Your task to perform on an android device: Clear the shopping cart on ebay. Add "bose soundlink" to the cart on ebay Image 0: 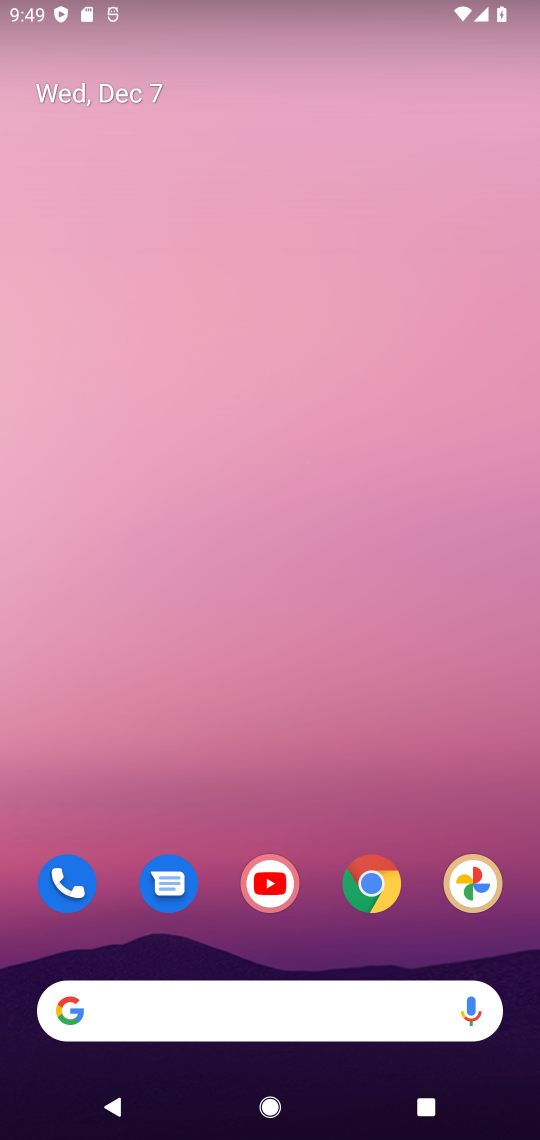
Step 0: drag from (228, 778) to (263, 133)
Your task to perform on an android device: Clear the shopping cart on ebay. Add "bose soundlink" to the cart on ebay Image 1: 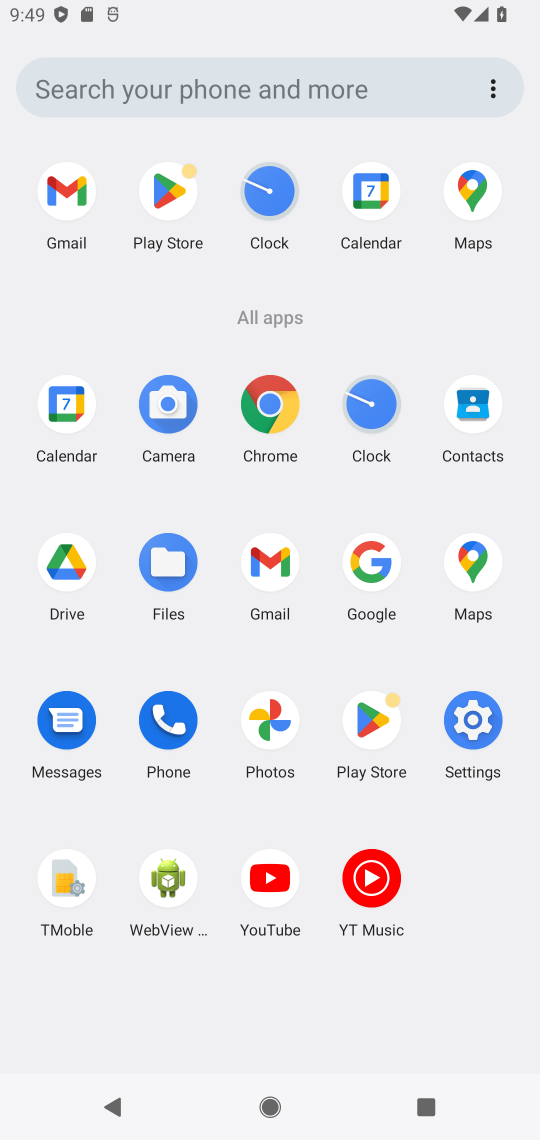
Step 1: click (364, 564)
Your task to perform on an android device: Clear the shopping cart on ebay. Add "bose soundlink" to the cart on ebay Image 2: 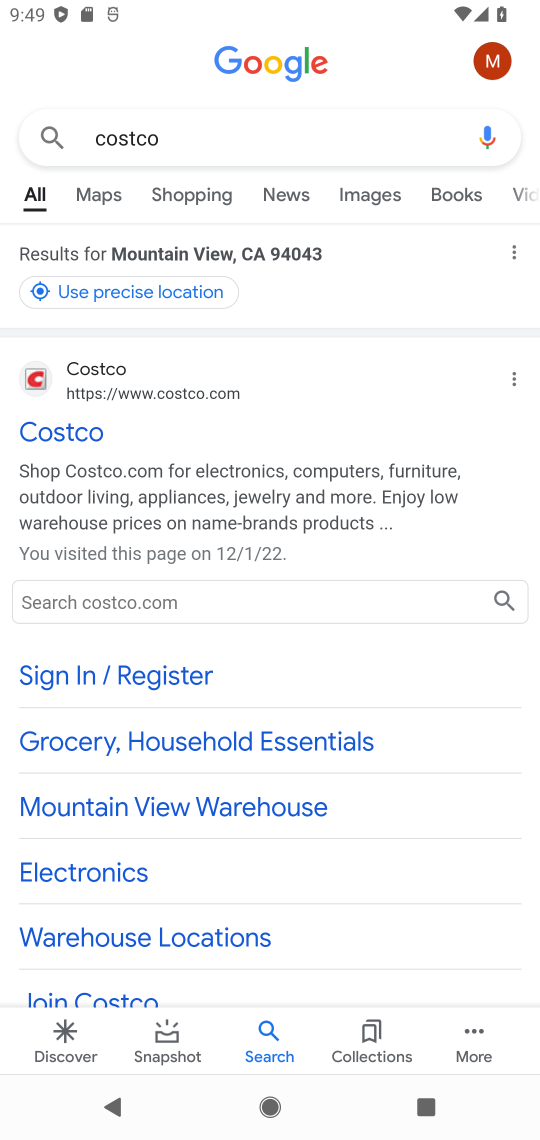
Step 2: click (170, 141)
Your task to perform on an android device: Clear the shopping cart on ebay. Add "bose soundlink" to the cart on ebay Image 3: 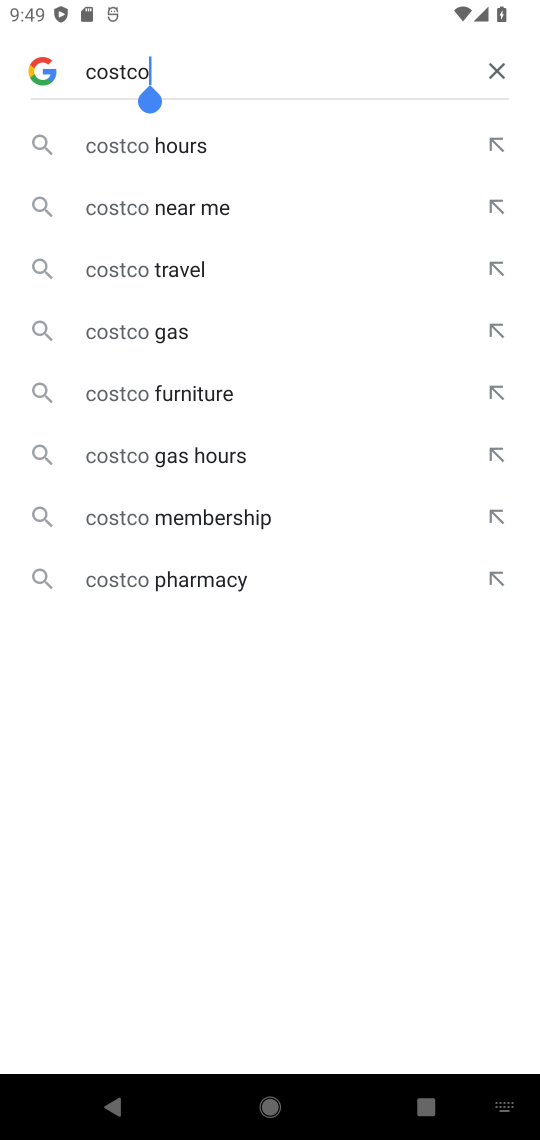
Step 3: click (496, 61)
Your task to perform on an android device: Clear the shopping cart on ebay. Add "bose soundlink" to the cart on ebay Image 4: 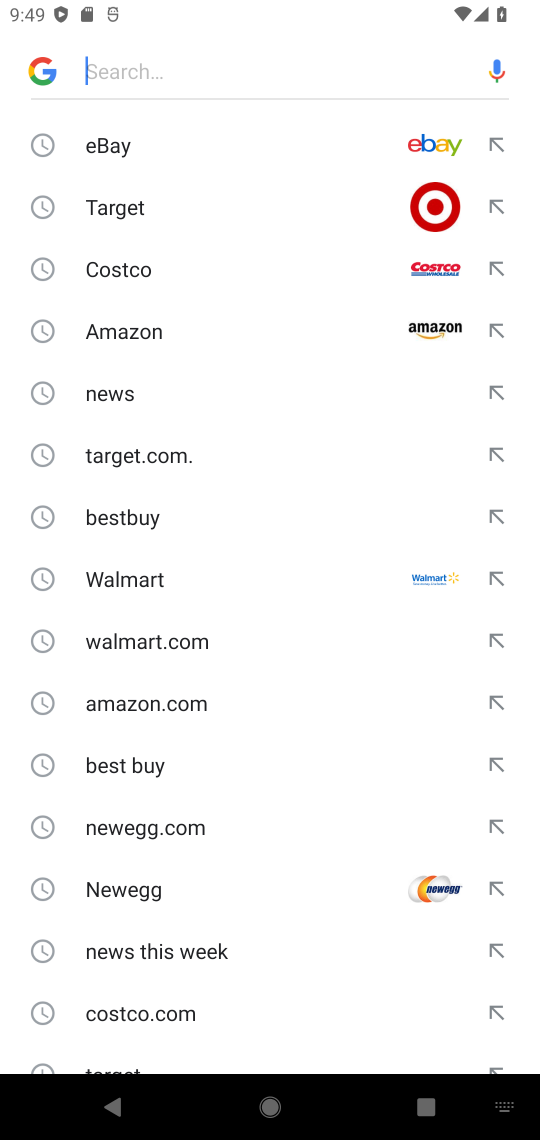
Step 4: click (99, 145)
Your task to perform on an android device: Clear the shopping cart on ebay. Add "bose soundlink" to the cart on ebay Image 5: 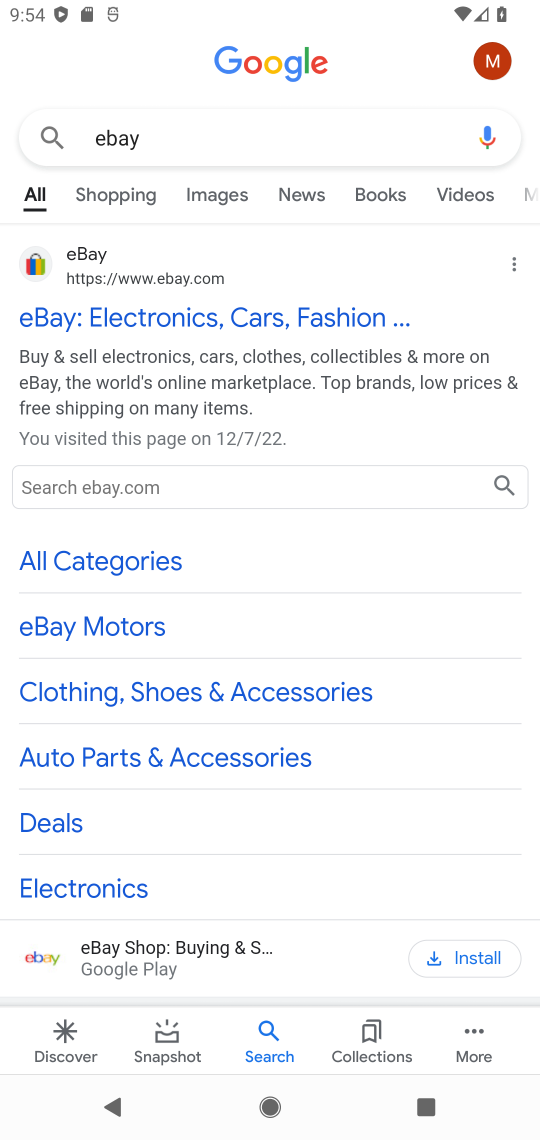
Step 5: click (231, 319)
Your task to perform on an android device: Clear the shopping cart on ebay. Add "bose soundlink" to the cart on ebay Image 6: 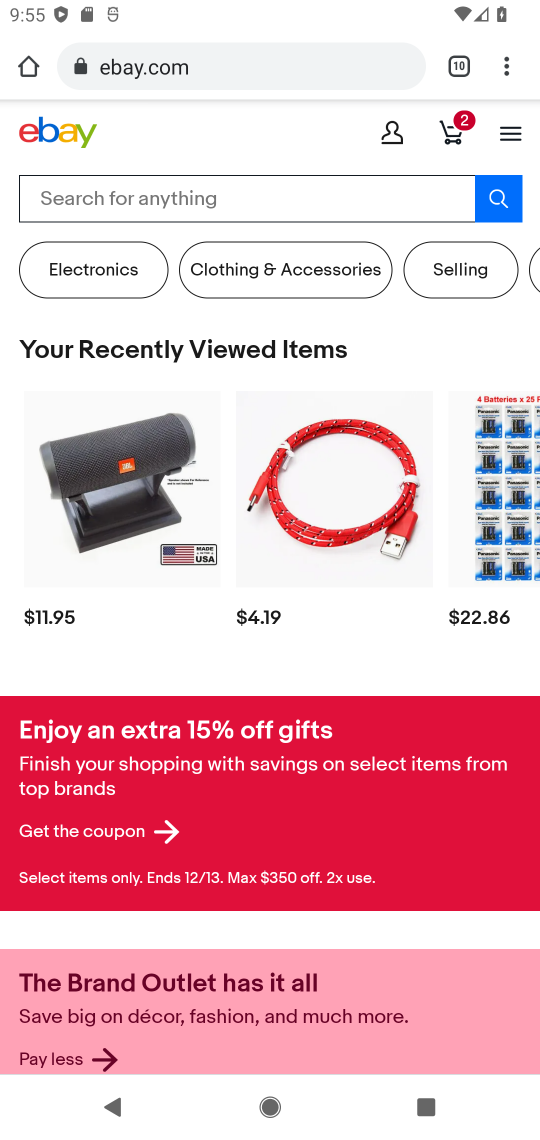
Step 6: click (441, 130)
Your task to perform on an android device: Clear the shopping cart on ebay. Add "bose soundlink" to the cart on ebay Image 7: 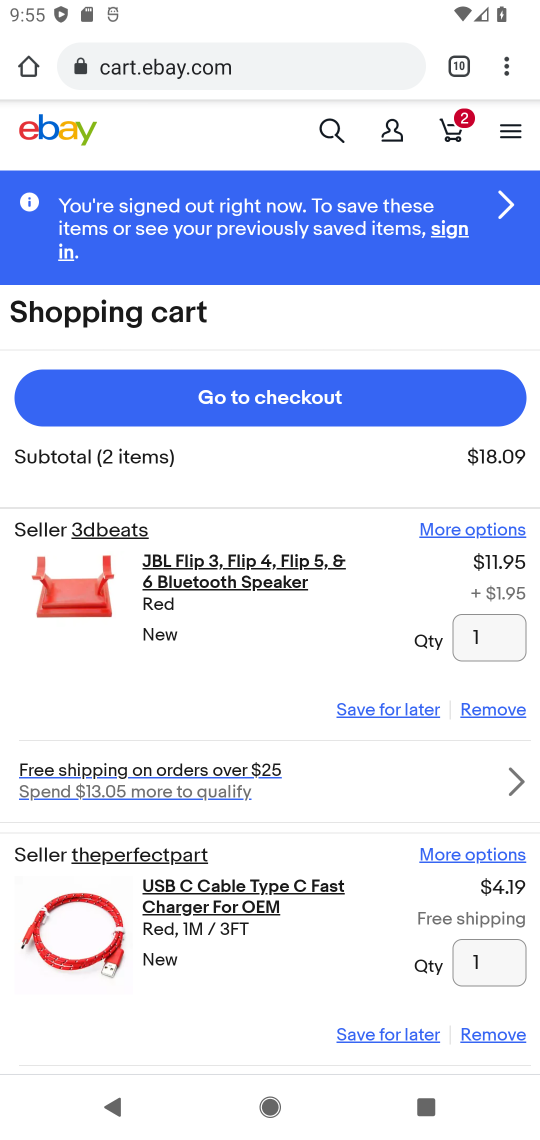
Step 7: click (499, 712)
Your task to perform on an android device: Clear the shopping cart on ebay. Add "bose soundlink" to the cart on ebay Image 8: 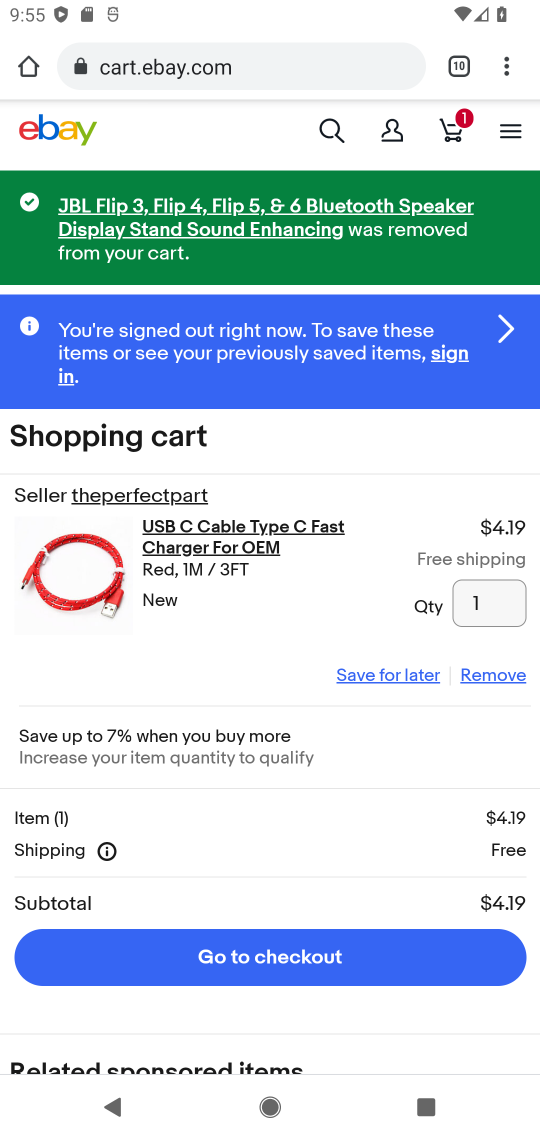
Step 8: click (503, 676)
Your task to perform on an android device: Clear the shopping cart on ebay. Add "bose soundlink" to the cart on ebay Image 9: 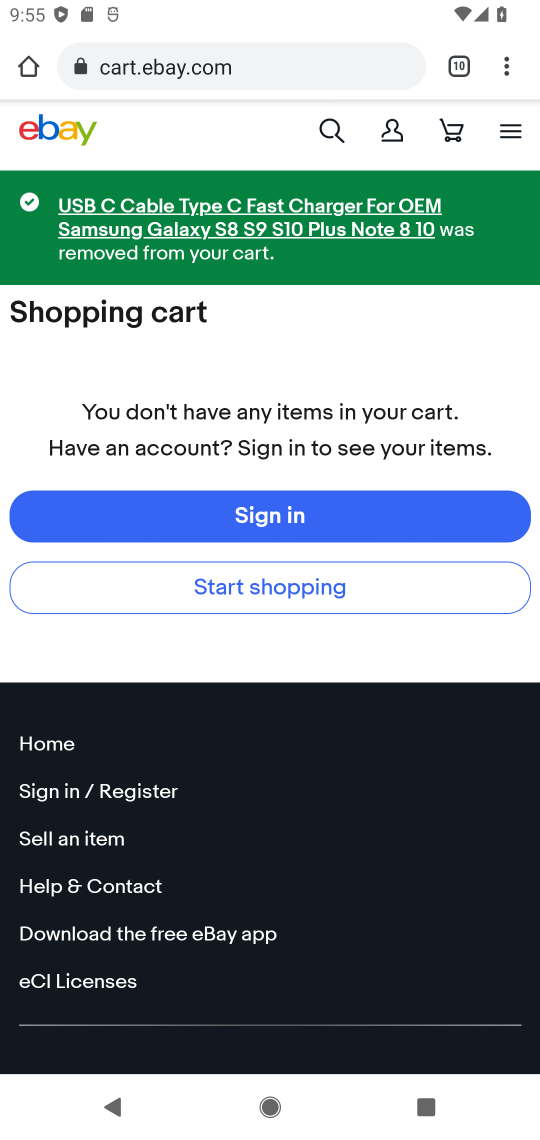
Step 9: click (328, 126)
Your task to perform on an android device: Clear the shopping cart on ebay. Add "bose soundlink" to the cart on ebay Image 10: 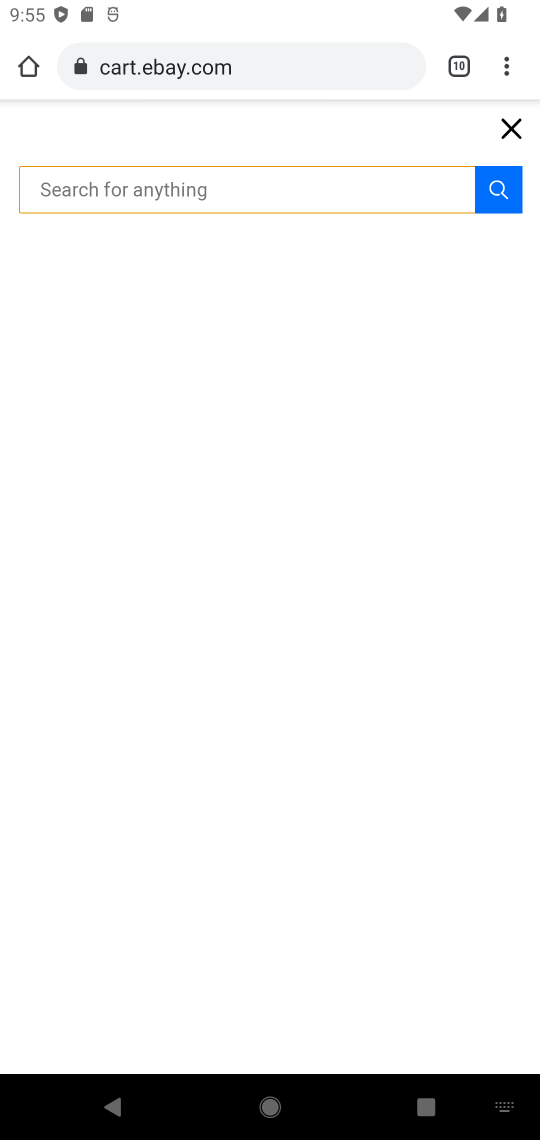
Step 10: type "bose soundlink"
Your task to perform on an android device: Clear the shopping cart on ebay. Add "bose soundlink" to the cart on ebay Image 11: 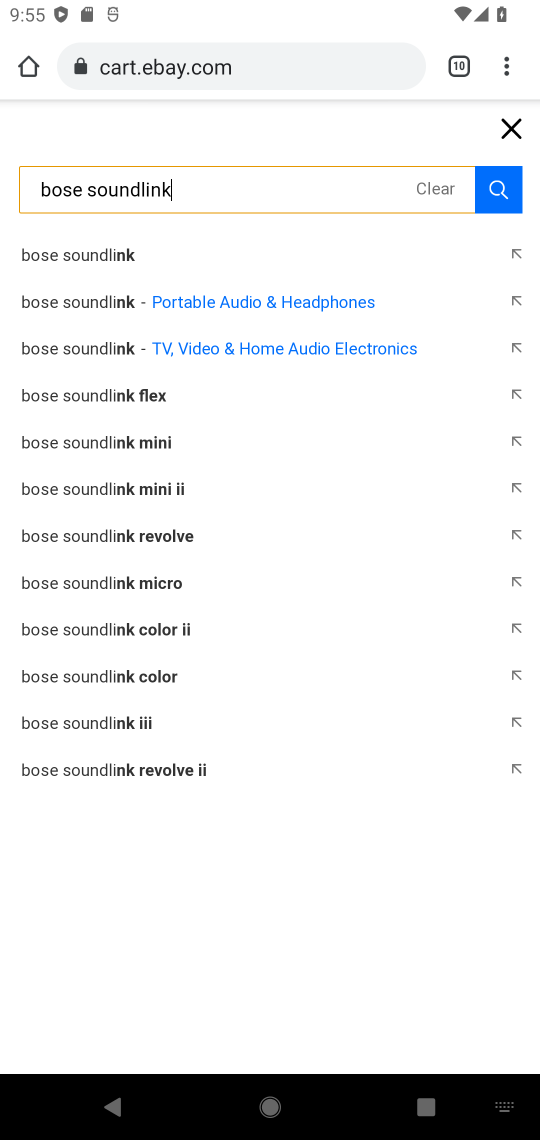
Step 11: click (122, 259)
Your task to perform on an android device: Clear the shopping cart on ebay. Add "bose soundlink" to the cart on ebay Image 12: 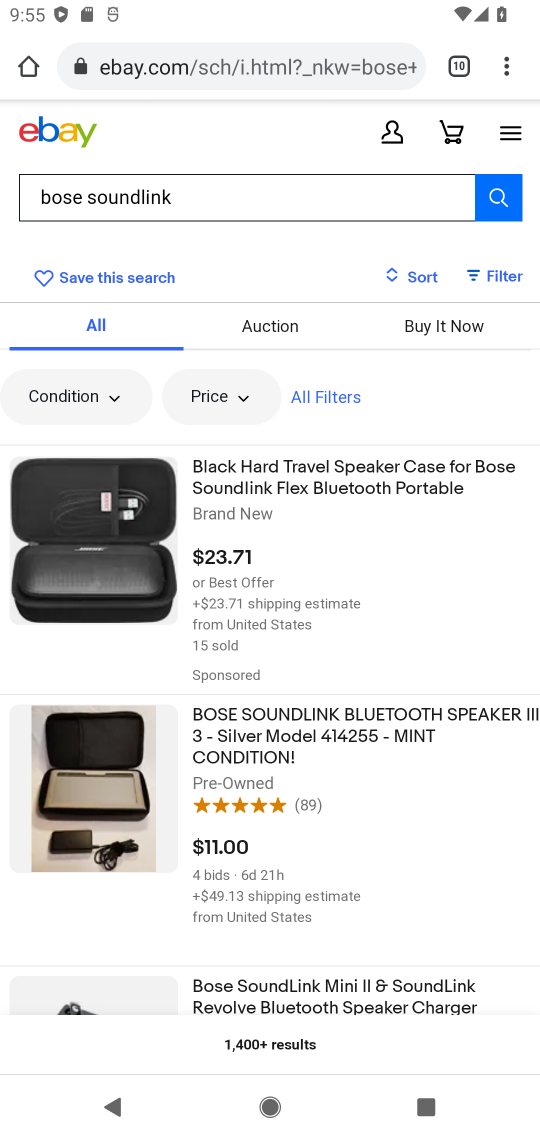
Step 12: click (242, 483)
Your task to perform on an android device: Clear the shopping cart on ebay. Add "bose soundlink" to the cart on ebay Image 13: 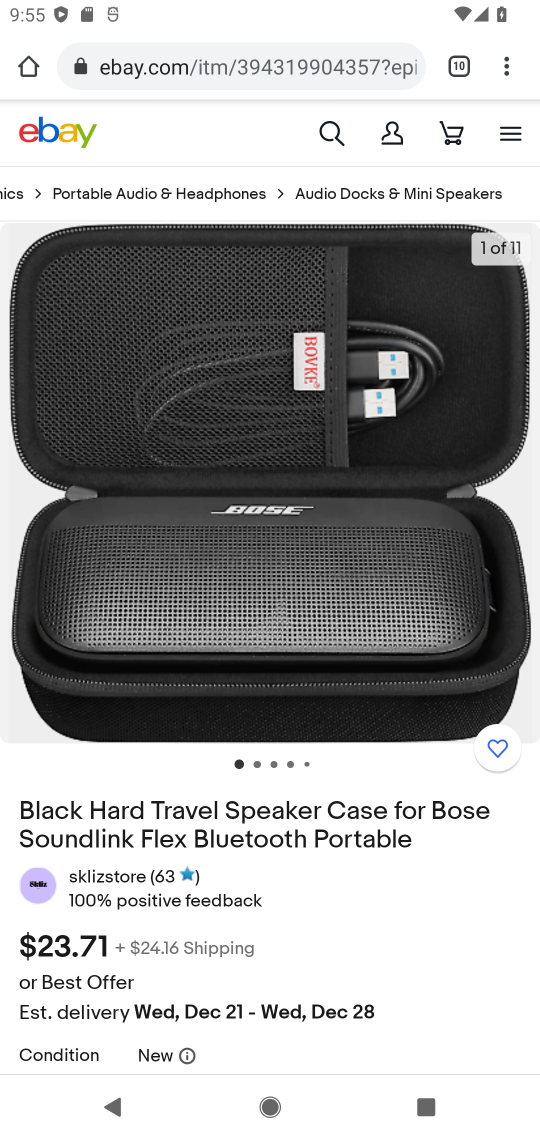
Step 13: drag from (307, 905) to (254, 279)
Your task to perform on an android device: Clear the shopping cart on ebay. Add "bose soundlink" to the cart on ebay Image 14: 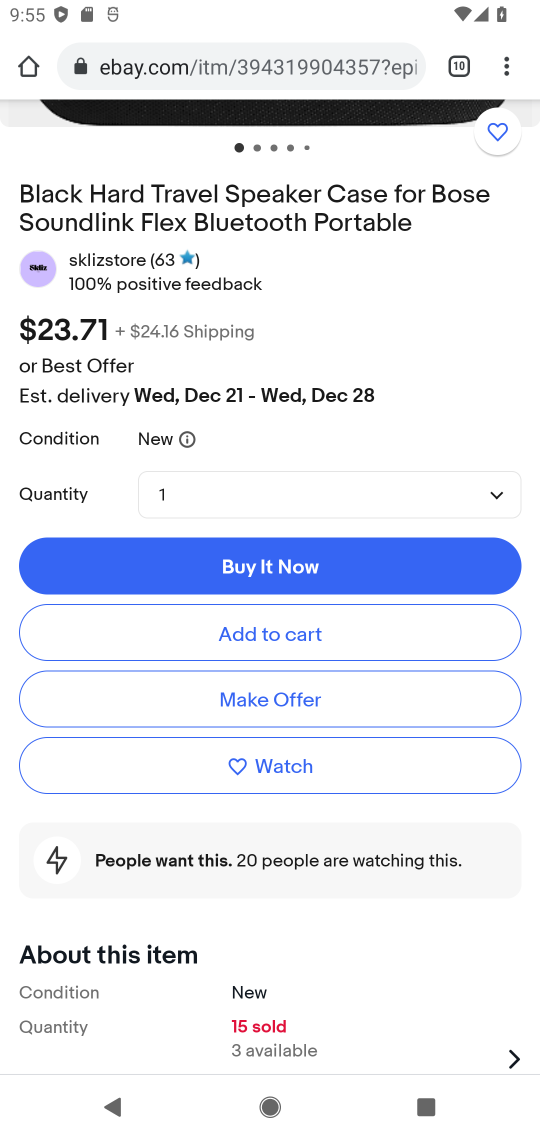
Step 14: click (318, 627)
Your task to perform on an android device: Clear the shopping cart on ebay. Add "bose soundlink" to the cart on ebay Image 15: 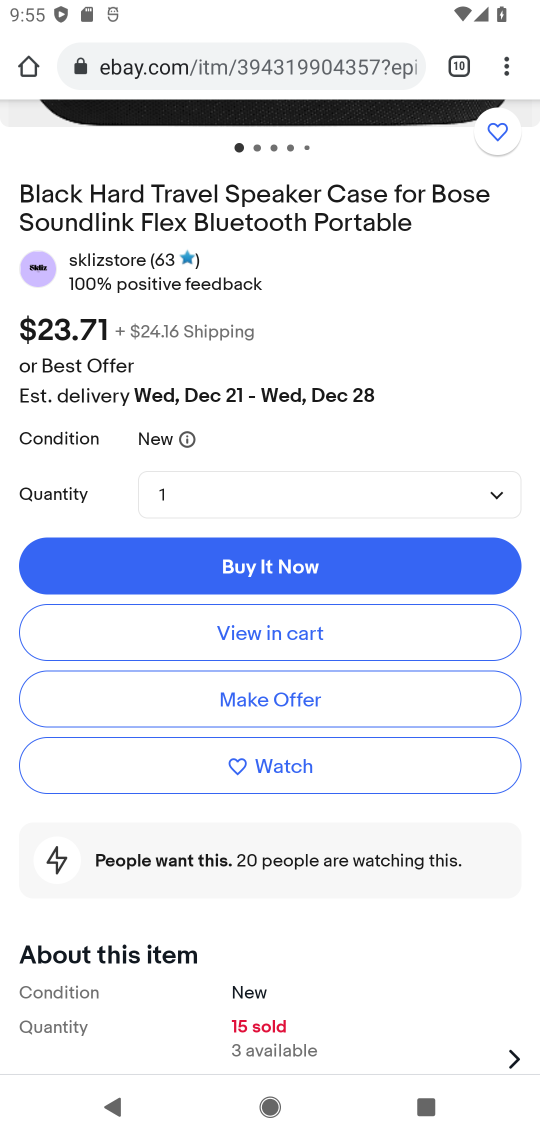
Step 15: click (314, 622)
Your task to perform on an android device: Clear the shopping cart on ebay. Add "bose soundlink" to the cart on ebay Image 16: 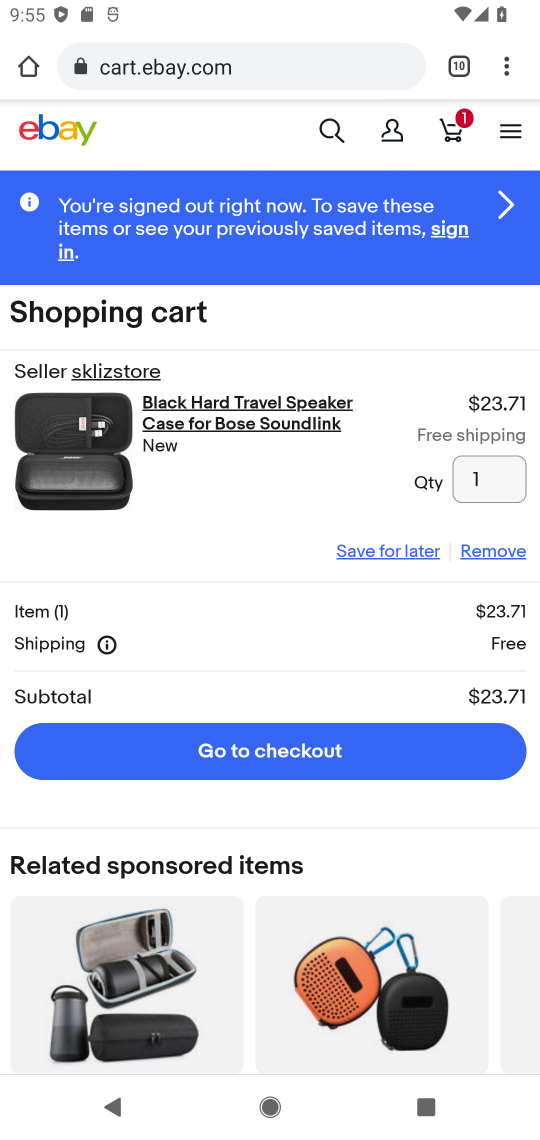
Step 16: task complete